Your task to perform on an android device: Open the phone app and click the voicemail tab. Image 0: 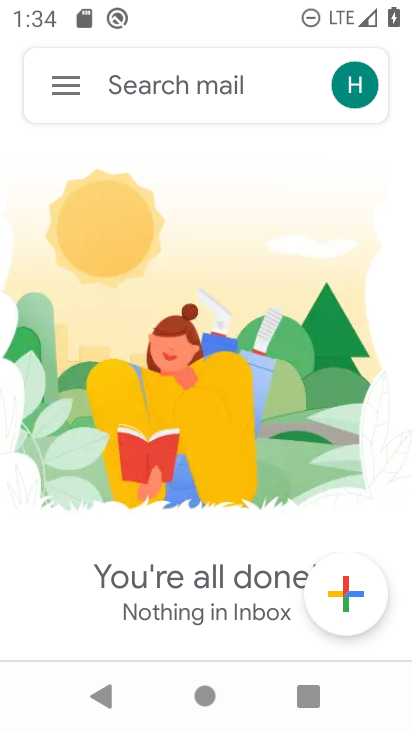
Step 0: press home button
Your task to perform on an android device: Open the phone app and click the voicemail tab. Image 1: 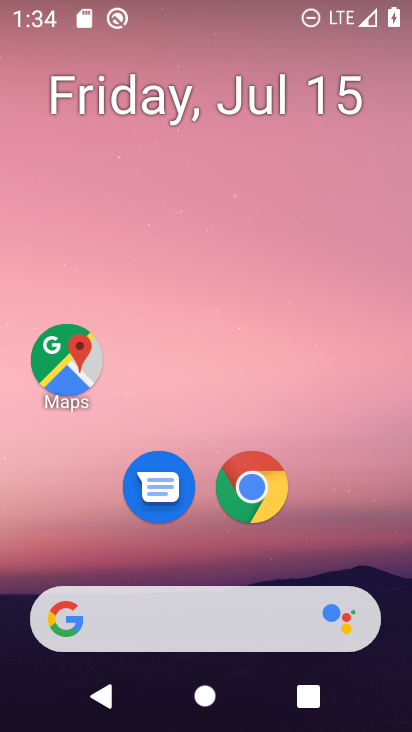
Step 1: drag from (231, 592) to (252, 103)
Your task to perform on an android device: Open the phone app and click the voicemail tab. Image 2: 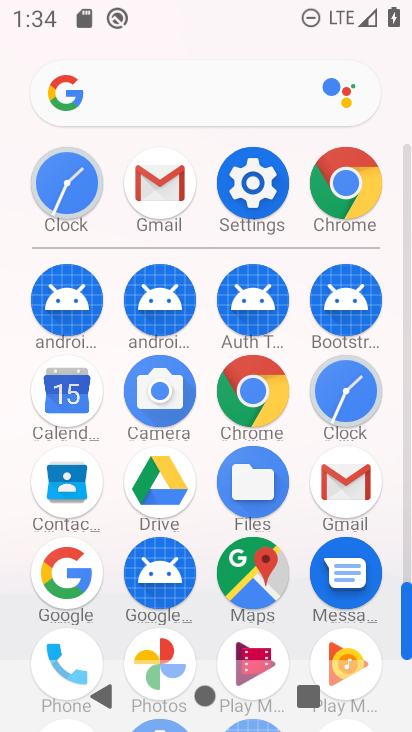
Step 2: drag from (224, 438) to (261, 27)
Your task to perform on an android device: Open the phone app and click the voicemail tab. Image 3: 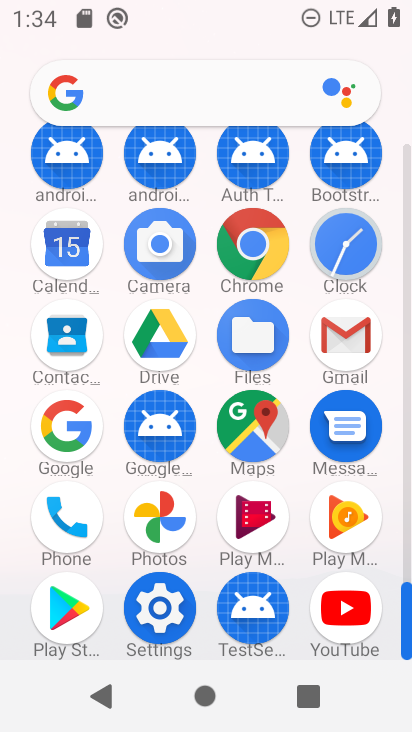
Step 3: click (80, 523)
Your task to perform on an android device: Open the phone app and click the voicemail tab. Image 4: 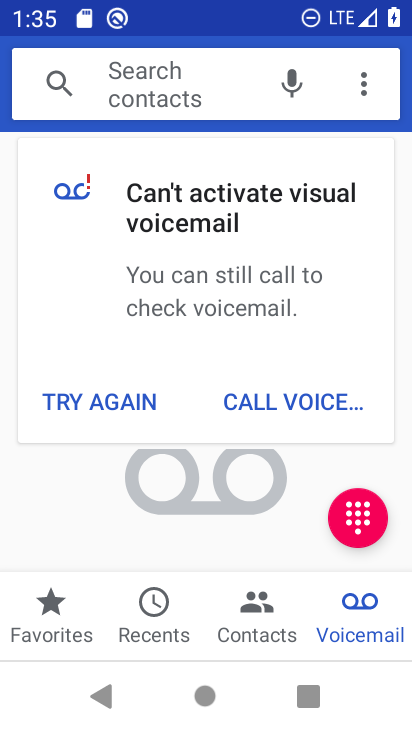
Step 4: task complete